Your task to perform on an android device: turn on showing notifications on the lock screen Image 0: 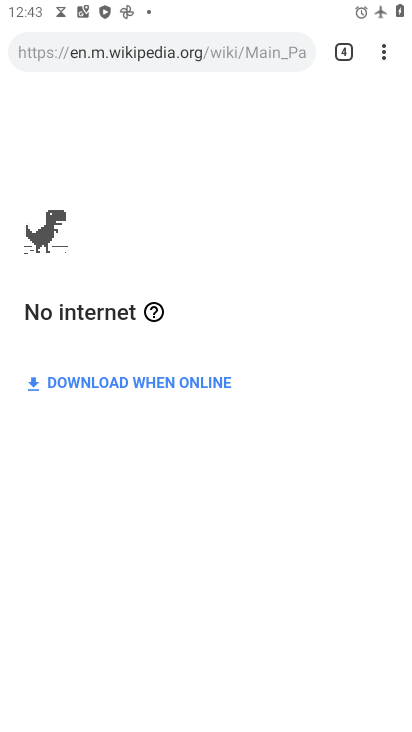
Step 0: press home button
Your task to perform on an android device: turn on showing notifications on the lock screen Image 1: 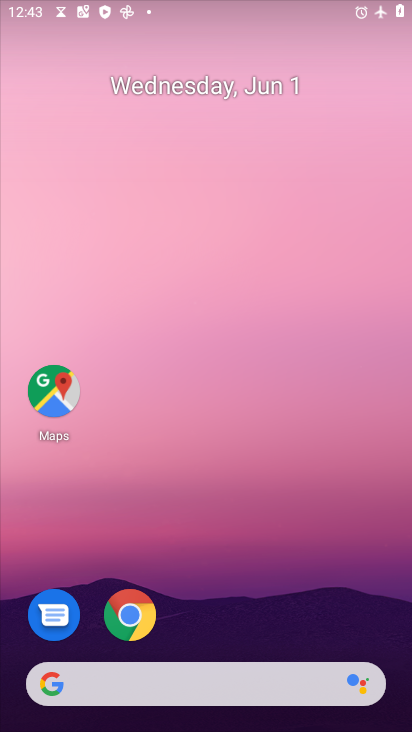
Step 1: drag from (296, 589) to (275, 42)
Your task to perform on an android device: turn on showing notifications on the lock screen Image 2: 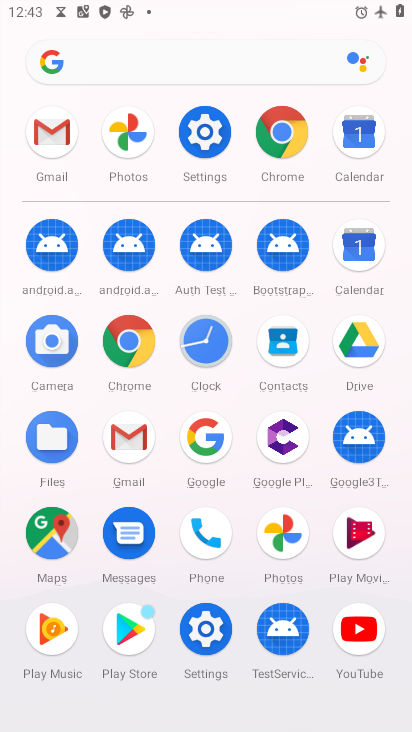
Step 2: click (199, 133)
Your task to perform on an android device: turn on showing notifications on the lock screen Image 3: 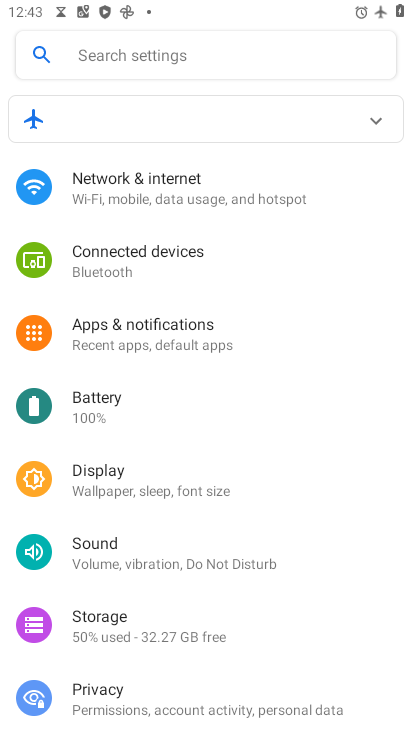
Step 3: click (200, 338)
Your task to perform on an android device: turn on showing notifications on the lock screen Image 4: 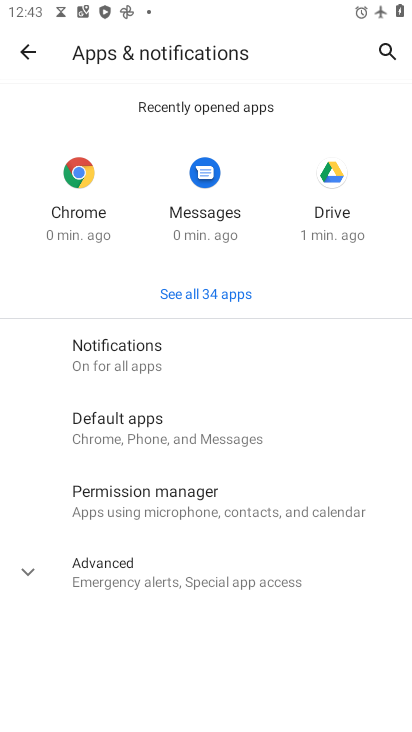
Step 4: click (111, 363)
Your task to perform on an android device: turn on showing notifications on the lock screen Image 5: 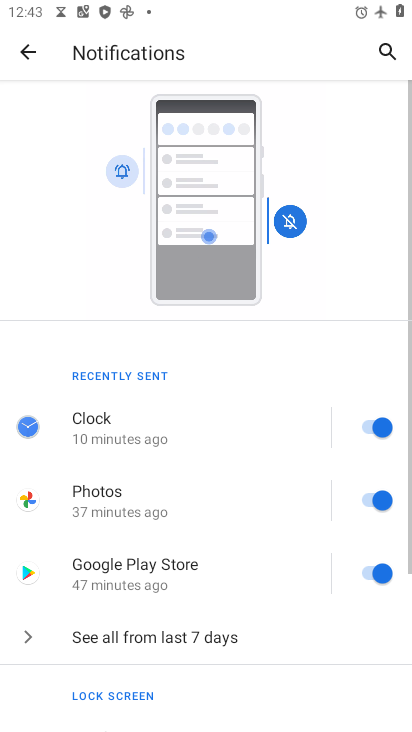
Step 5: drag from (117, 618) to (86, 164)
Your task to perform on an android device: turn on showing notifications on the lock screen Image 6: 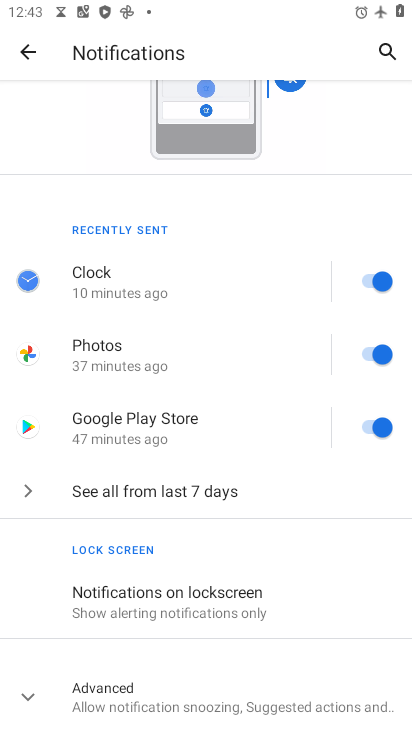
Step 6: click (158, 617)
Your task to perform on an android device: turn on showing notifications on the lock screen Image 7: 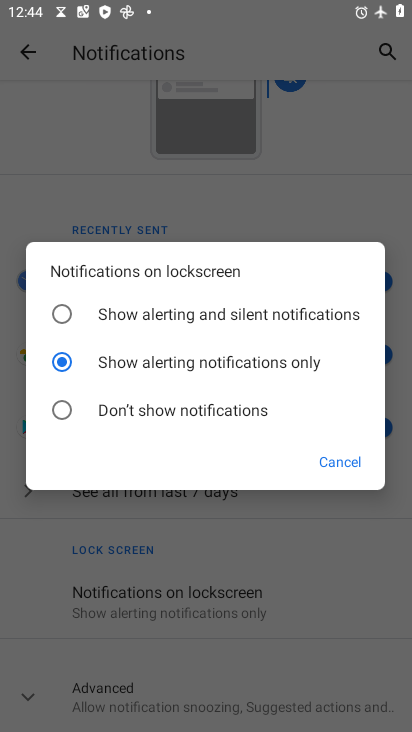
Step 7: click (68, 305)
Your task to perform on an android device: turn on showing notifications on the lock screen Image 8: 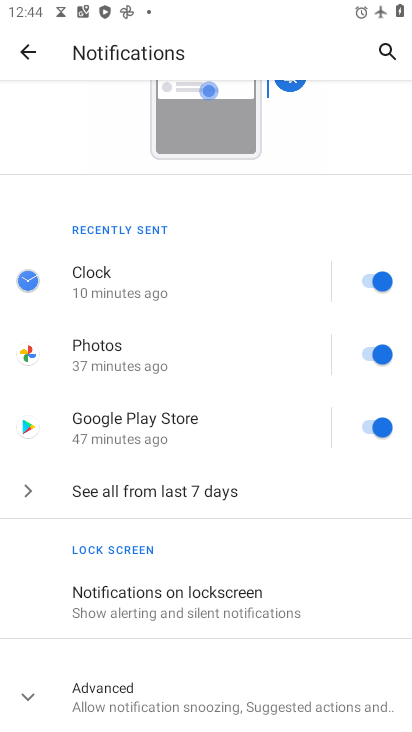
Step 8: task complete